Your task to perform on an android device: Look up the best rated pressure washer on Home Depot. Image 0: 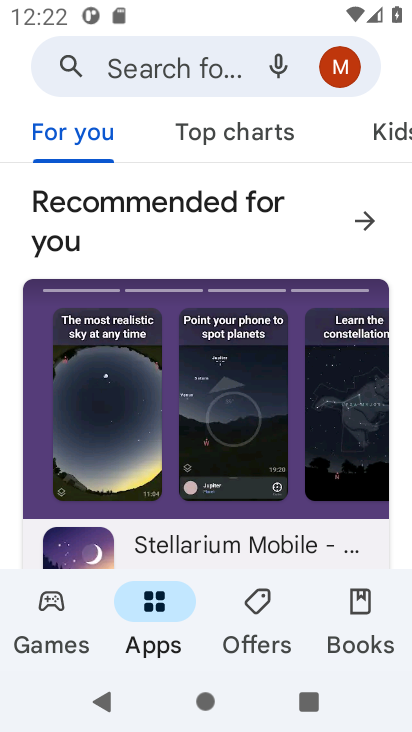
Step 0: press home button
Your task to perform on an android device: Look up the best rated pressure washer on Home Depot. Image 1: 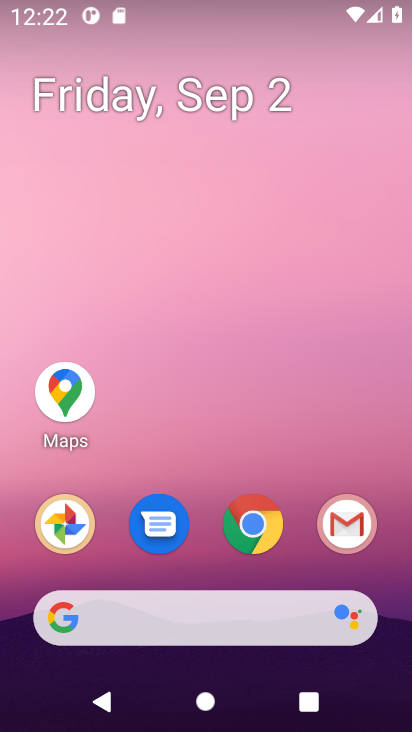
Step 1: click (270, 625)
Your task to perform on an android device: Look up the best rated pressure washer on Home Depot. Image 2: 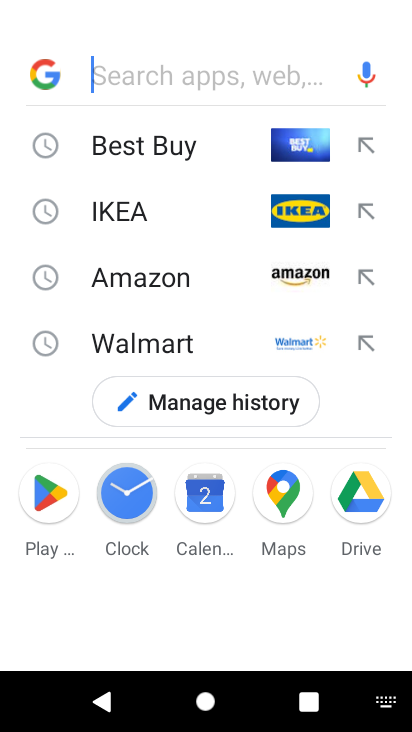
Step 2: press enter
Your task to perform on an android device: Look up the best rated pressure washer on Home Depot. Image 3: 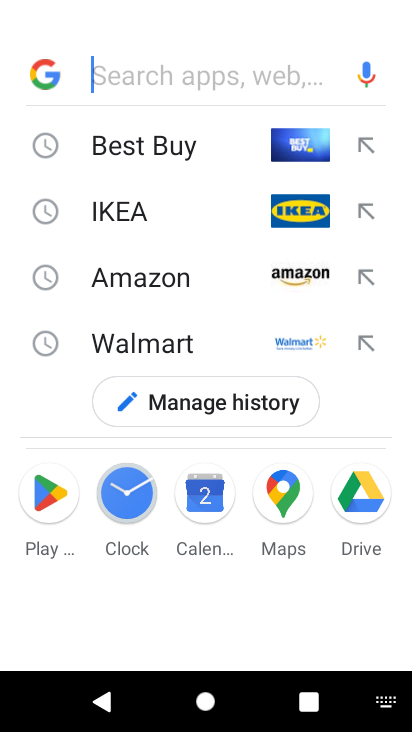
Step 3: type "home depot"
Your task to perform on an android device: Look up the best rated pressure washer on Home Depot. Image 4: 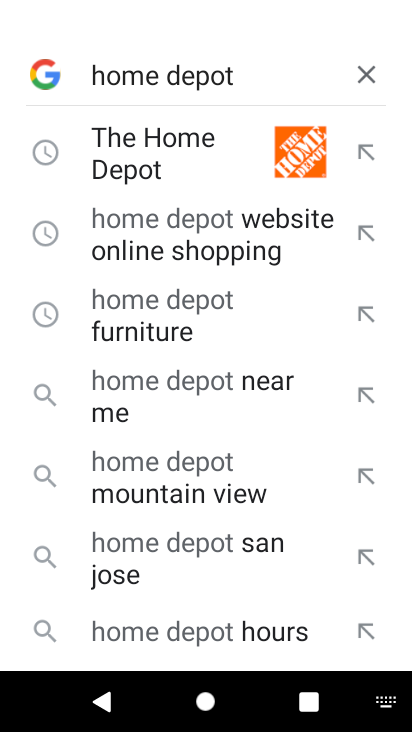
Step 4: click (155, 142)
Your task to perform on an android device: Look up the best rated pressure washer on Home Depot. Image 5: 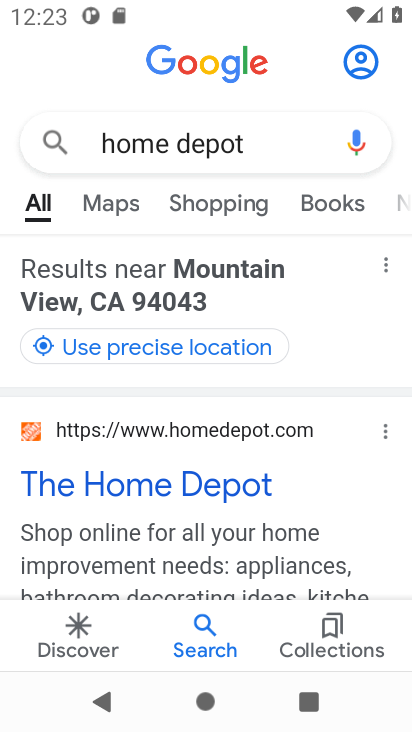
Step 5: click (223, 486)
Your task to perform on an android device: Look up the best rated pressure washer on Home Depot. Image 6: 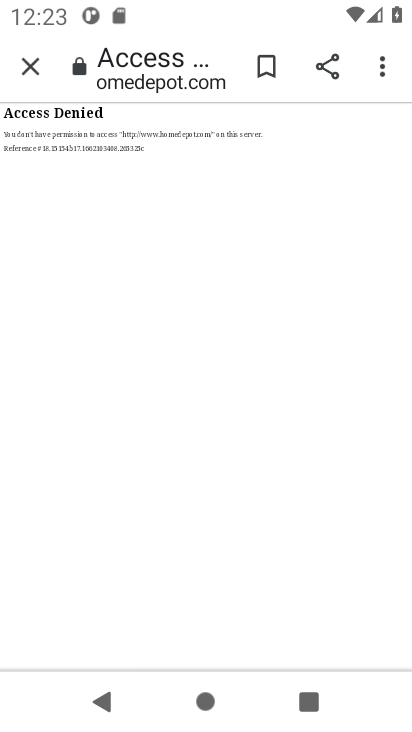
Step 6: task complete